Your task to perform on an android device: Open the clock Image 0: 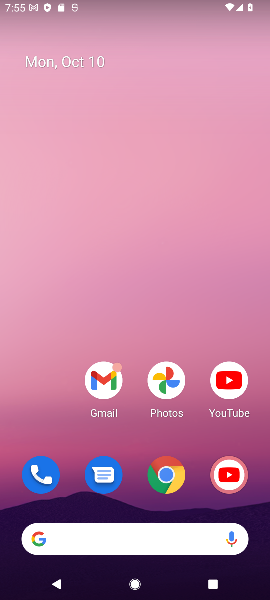
Step 0: drag from (138, 493) to (152, 69)
Your task to perform on an android device: Open the clock Image 1: 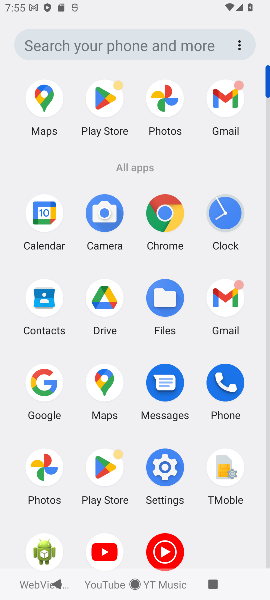
Step 1: click (216, 208)
Your task to perform on an android device: Open the clock Image 2: 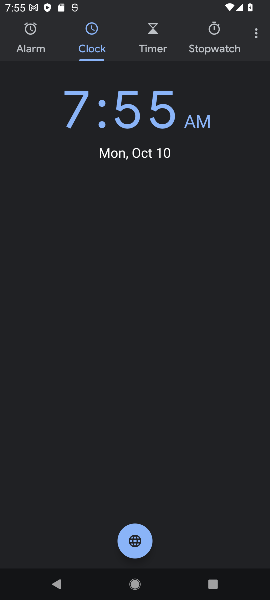
Step 2: task complete